Your task to perform on an android device: Open Amazon Image 0: 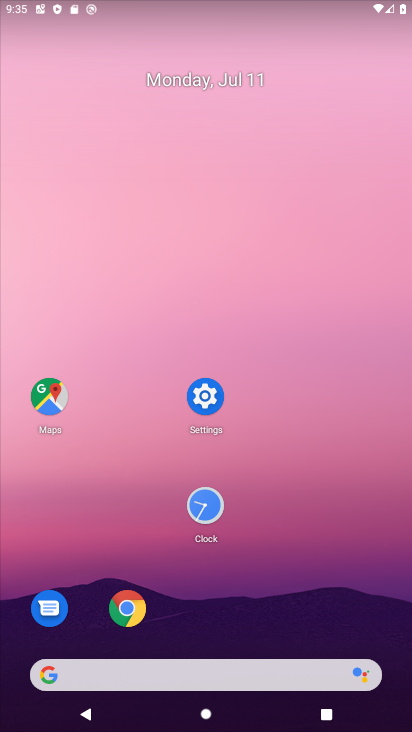
Step 0: click (123, 601)
Your task to perform on an android device: Open Amazon Image 1: 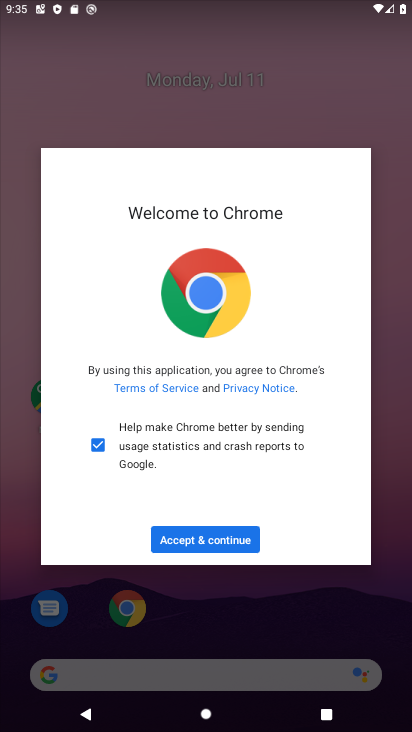
Step 1: click (215, 536)
Your task to perform on an android device: Open Amazon Image 2: 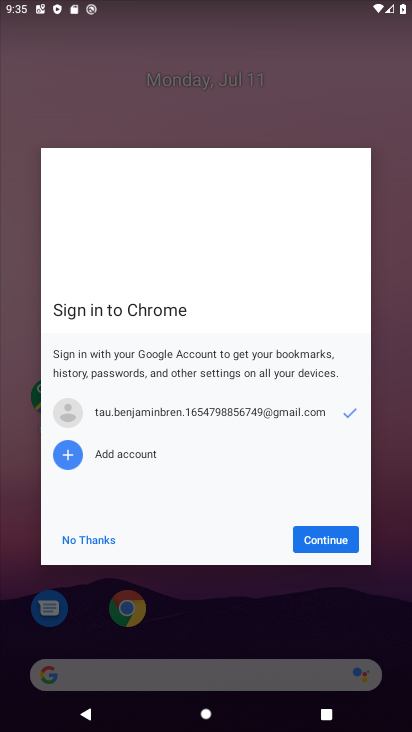
Step 2: click (334, 535)
Your task to perform on an android device: Open Amazon Image 3: 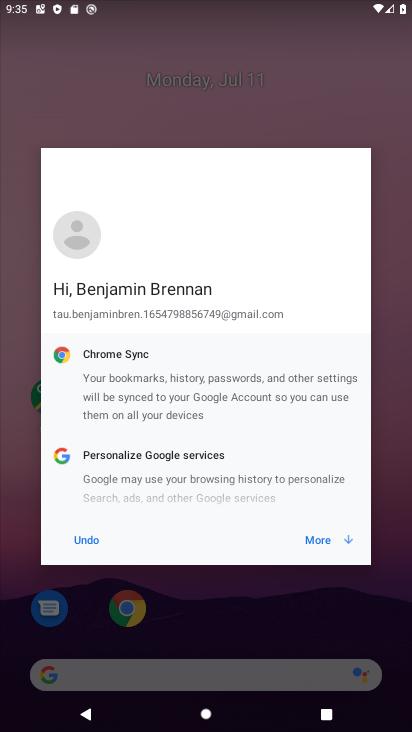
Step 3: click (334, 532)
Your task to perform on an android device: Open Amazon Image 4: 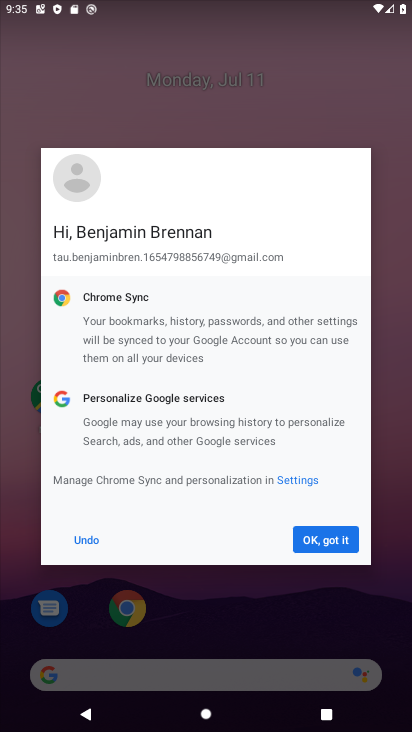
Step 4: click (323, 538)
Your task to perform on an android device: Open Amazon Image 5: 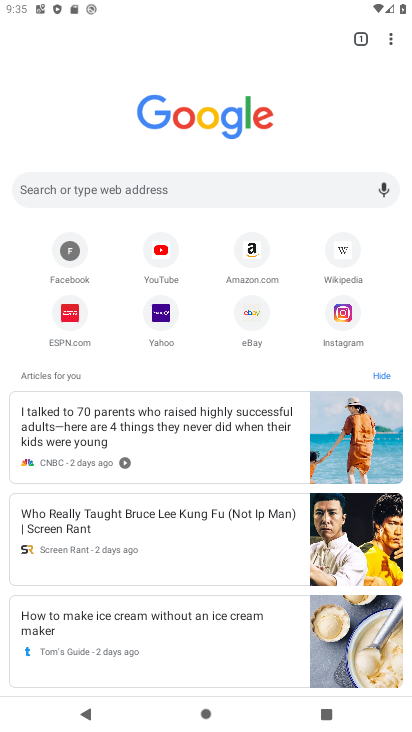
Step 5: click (194, 181)
Your task to perform on an android device: Open Amazon Image 6: 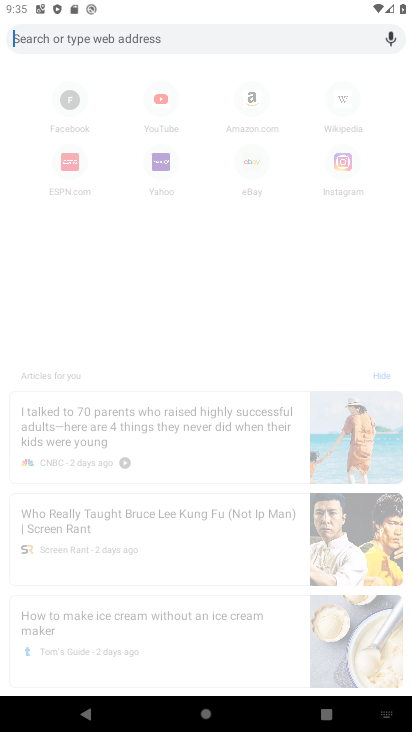
Step 6: type "Amazon"
Your task to perform on an android device: Open Amazon Image 7: 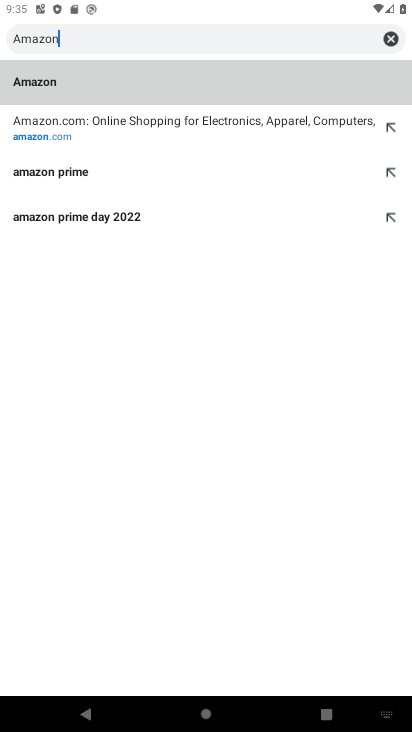
Step 7: click (50, 89)
Your task to perform on an android device: Open Amazon Image 8: 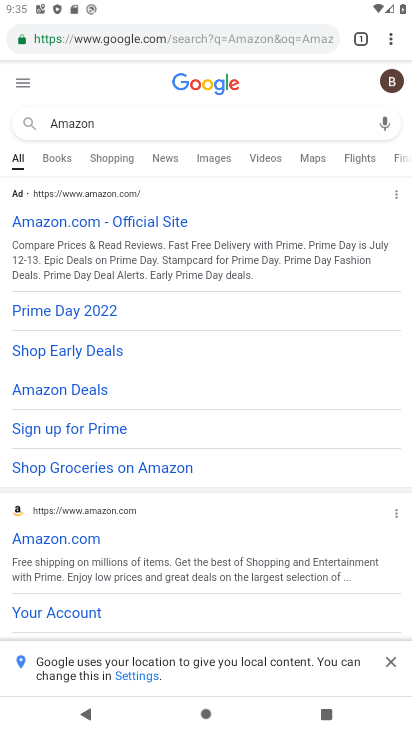
Step 8: task complete